Your task to perform on an android device: Go to network settings Image 0: 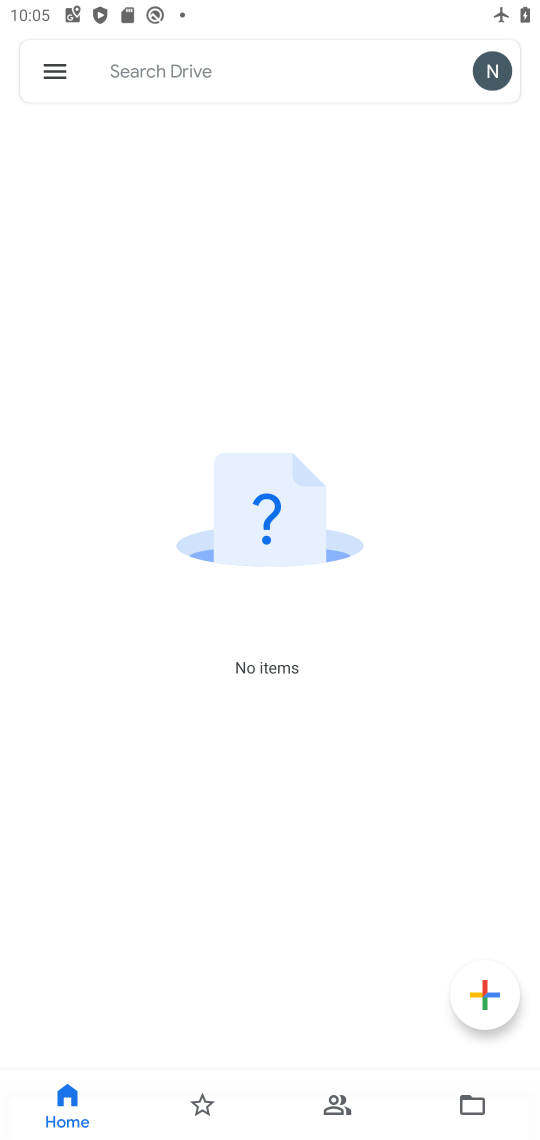
Step 0: press back button
Your task to perform on an android device: Go to network settings Image 1: 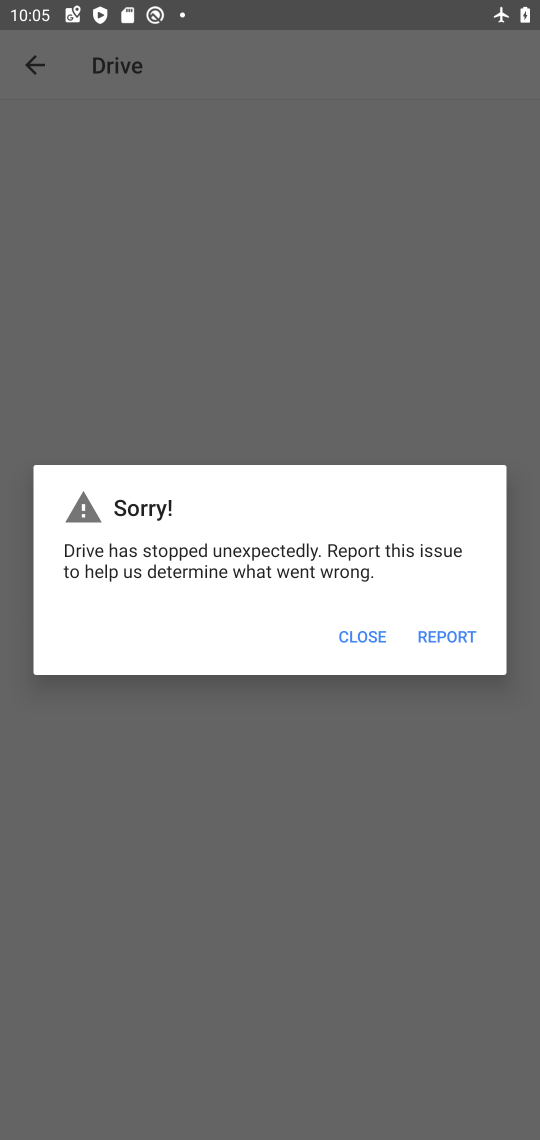
Step 1: press back button
Your task to perform on an android device: Go to network settings Image 2: 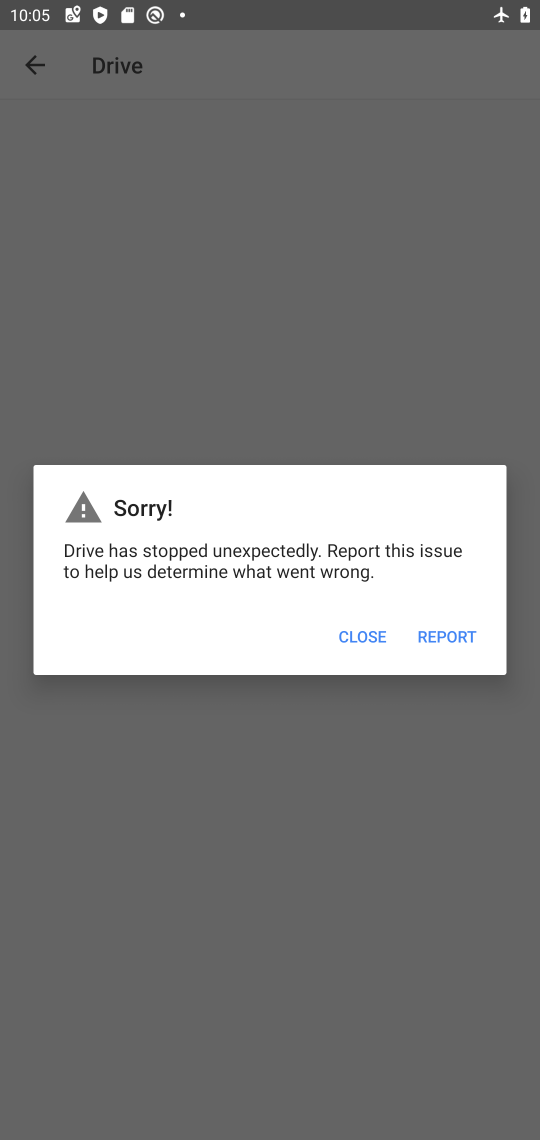
Step 2: click (346, 611)
Your task to perform on an android device: Go to network settings Image 3: 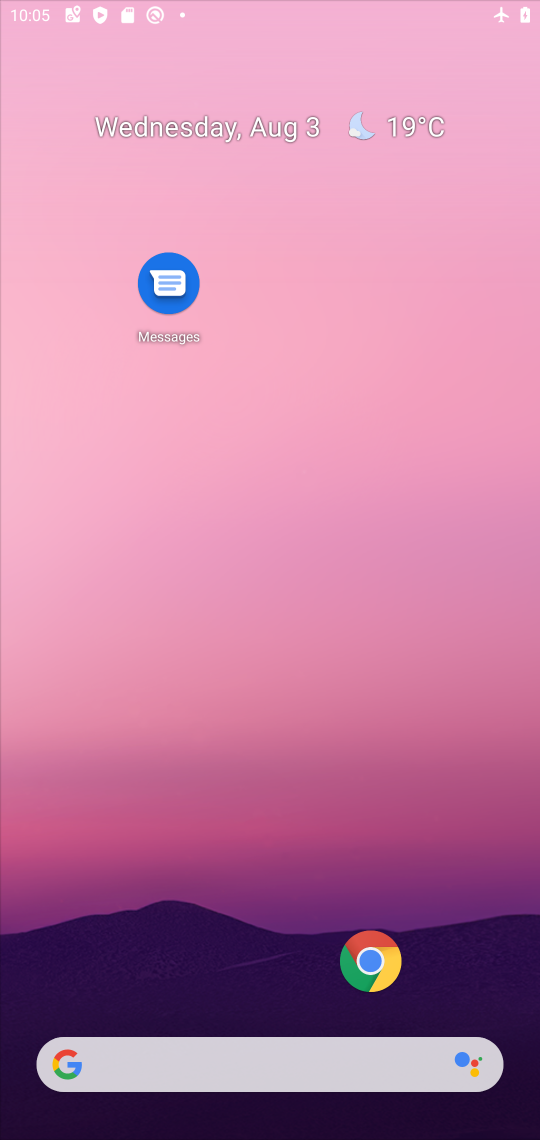
Step 3: press home button
Your task to perform on an android device: Go to network settings Image 4: 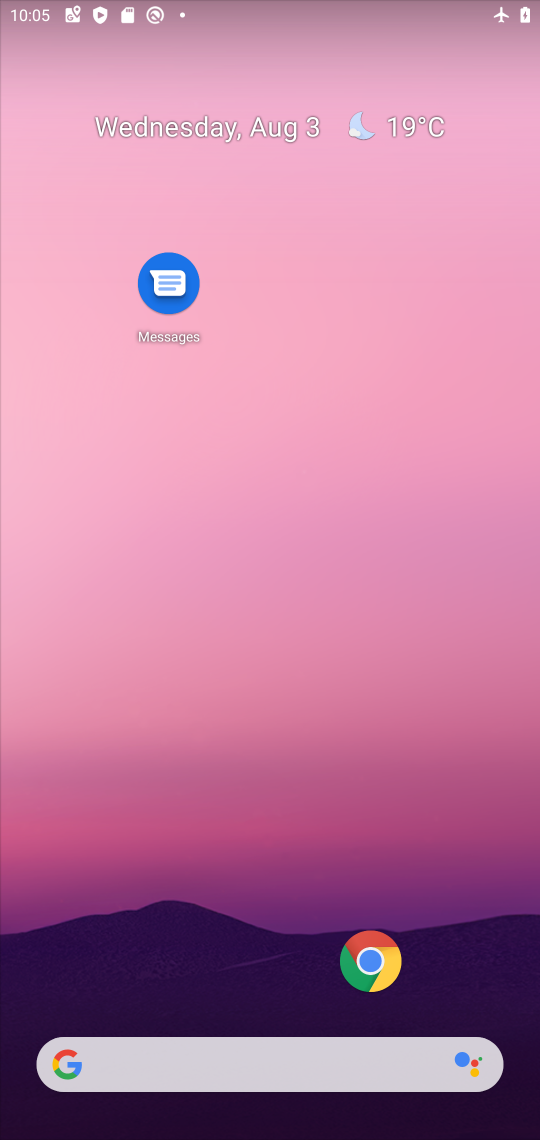
Step 4: drag from (212, 1022) to (79, 3)
Your task to perform on an android device: Go to network settings Image 5: 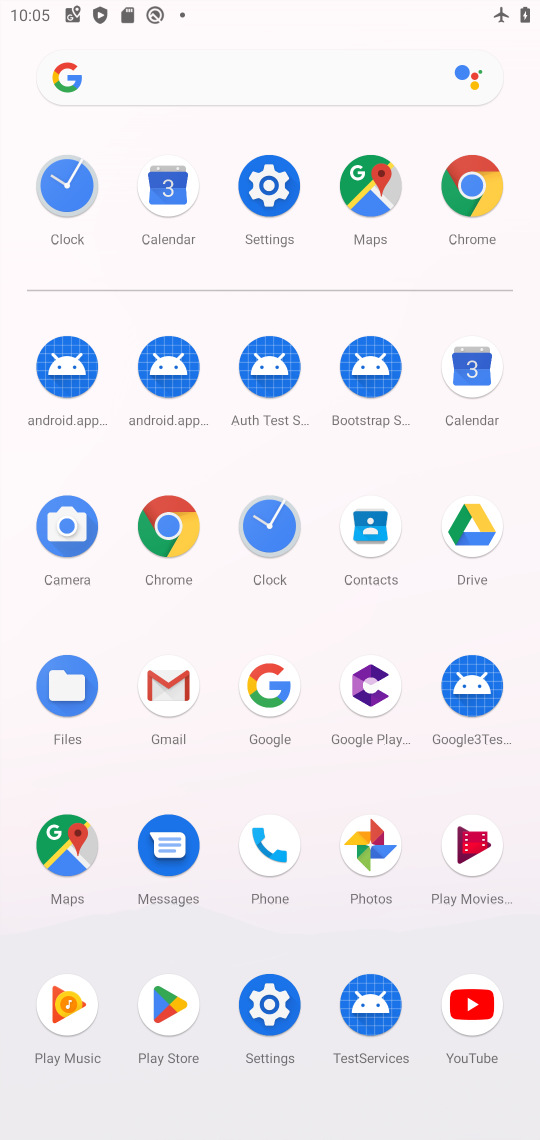
Step 5: click (287, 187)
Your task to perform on an android device: Go to network settings Image 6: 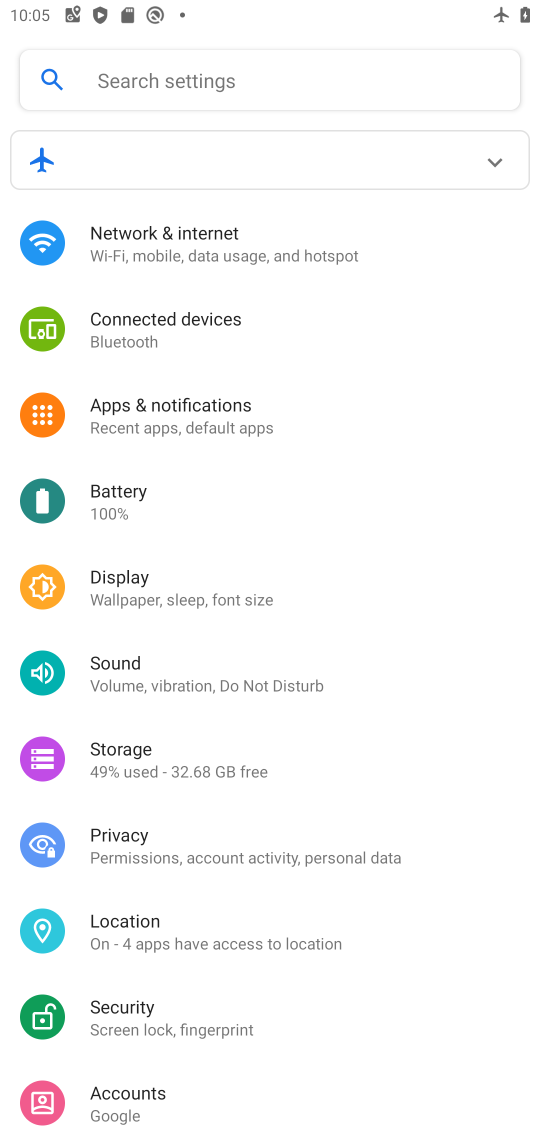
Step 6: click (145, 245)
Your task to perform on an android device: Go to network settings Image 7: 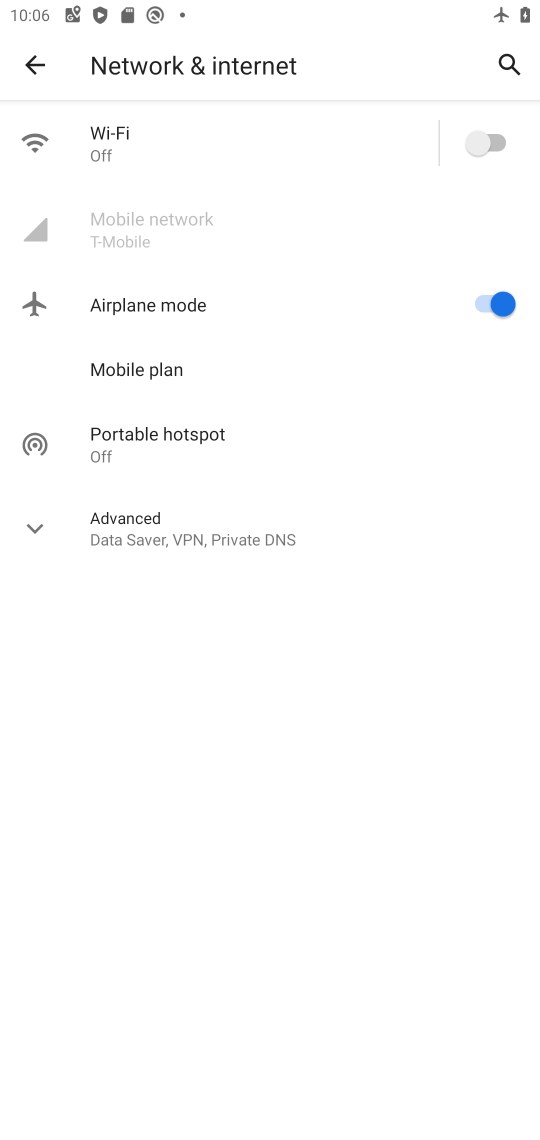
Step 7: click (81, 520)
Your task to perform on an android device: Go to network settings Image 8: 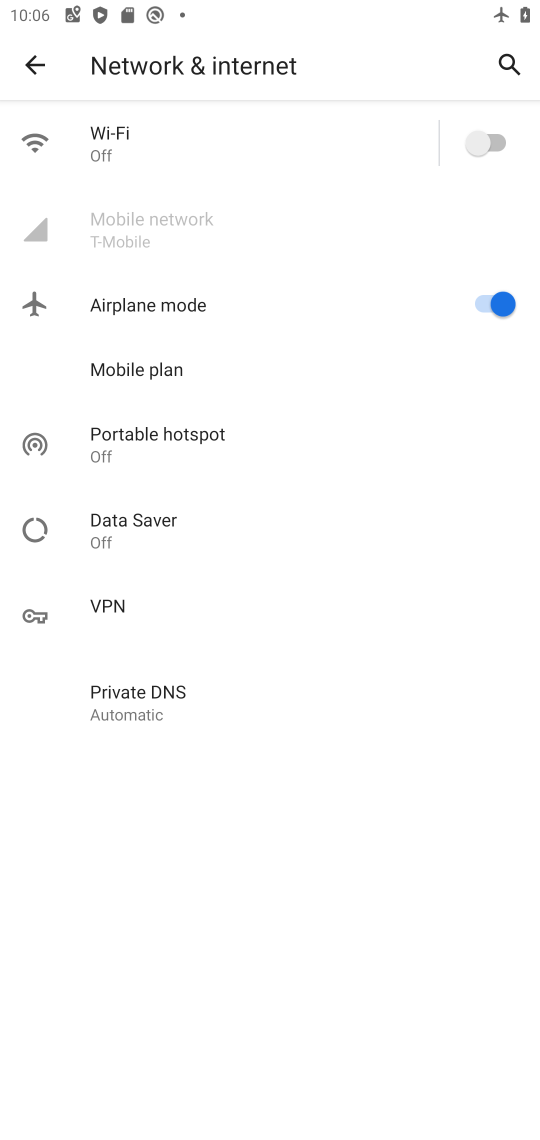
Step 8: task complete